Your task to perform on an android device: turn off priority inbox in the gmail app Image 0: 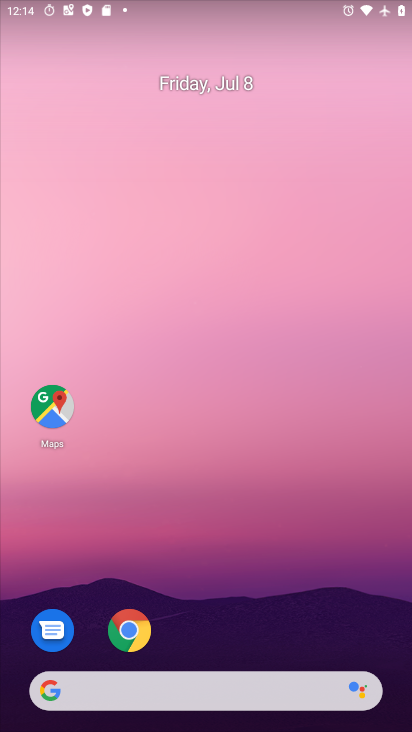
Step 0: drag from (244, 624) to (221, 108)
Your task to perform on an android device: turn off priority inbox in the gmail app Image 1: 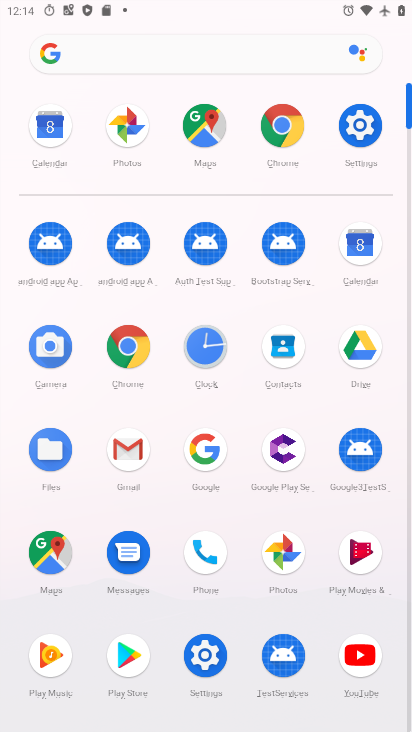
Step 1: click (124, 441)
Your task to perform on an android device: turn off priority inbox in the gmail app Image 2: 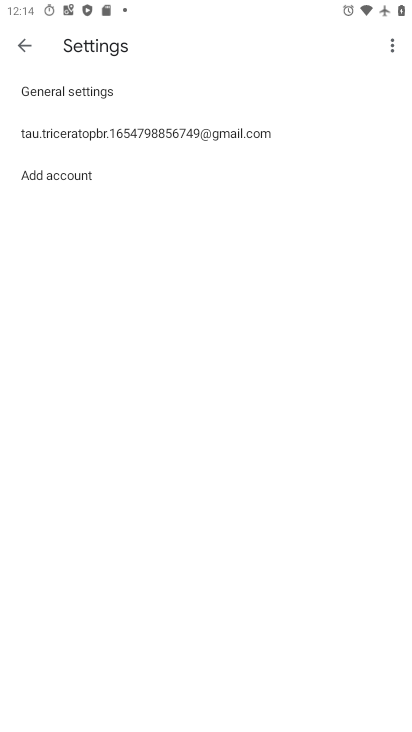
Step 2: click (71, 131)
Your task to perform on an android device: turn off priority inbox in the gmail app Image 3: 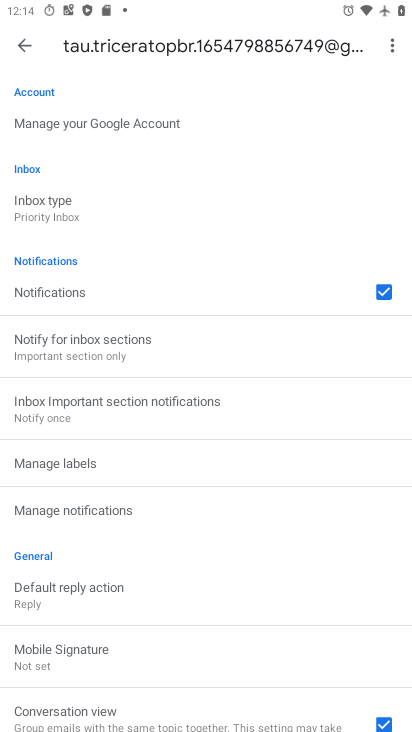
Step 3: click (107, 208)
Your task to perform on an android device: turn off priority inbox in the gmail app Image 4: 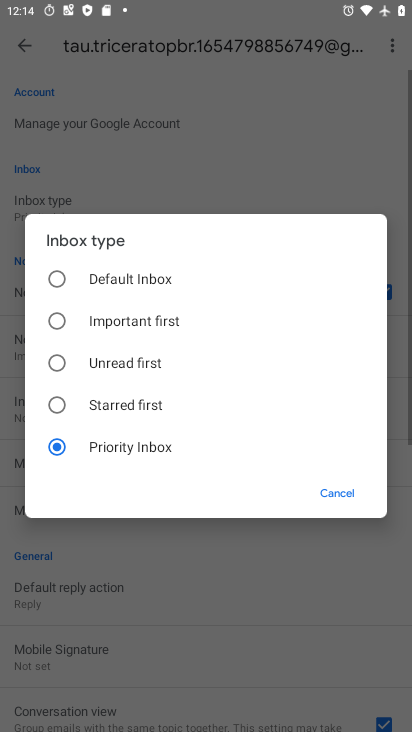
Step 4: click (60, 272)
Your task to perform on an android device: turn off priority inbox in the gmail app Image 5: 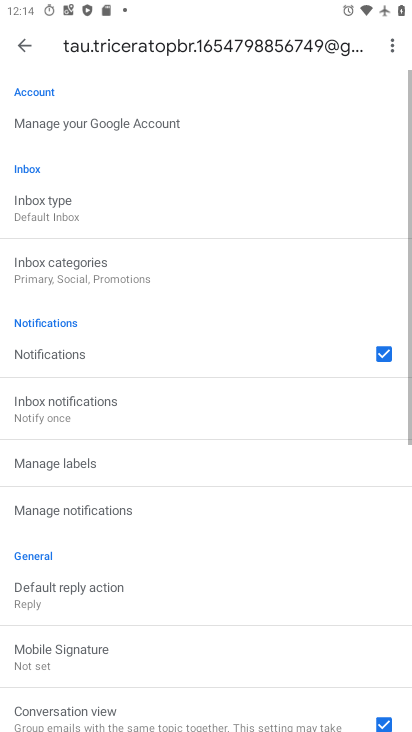
Step 5: task complete